Your task to perform on an android device: Search for the best vacuum on Walmart Image 0: 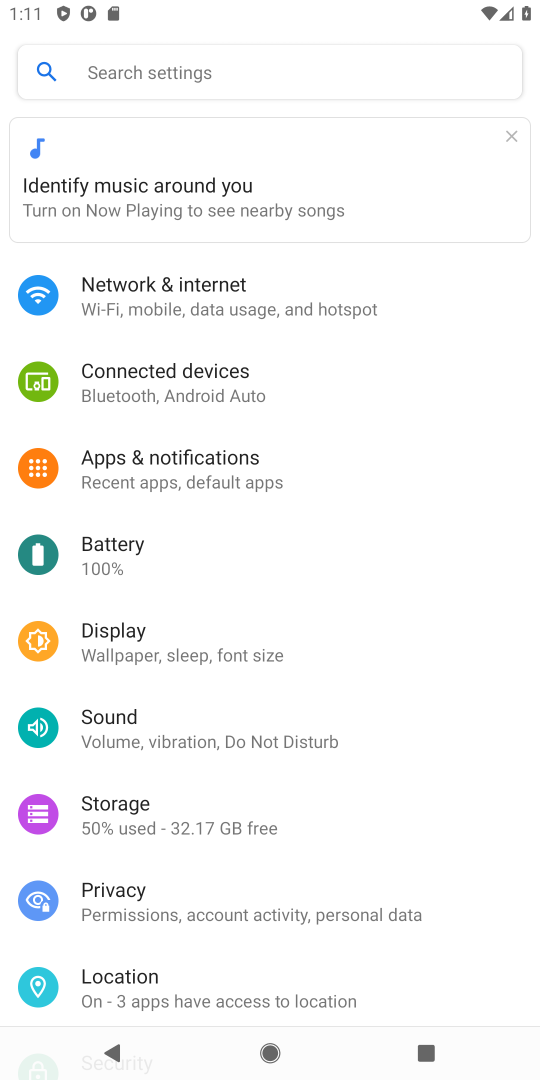
Step 0: press home button
Your task to perform on an android device: Search for the best vacuum on Walmart Image 1: 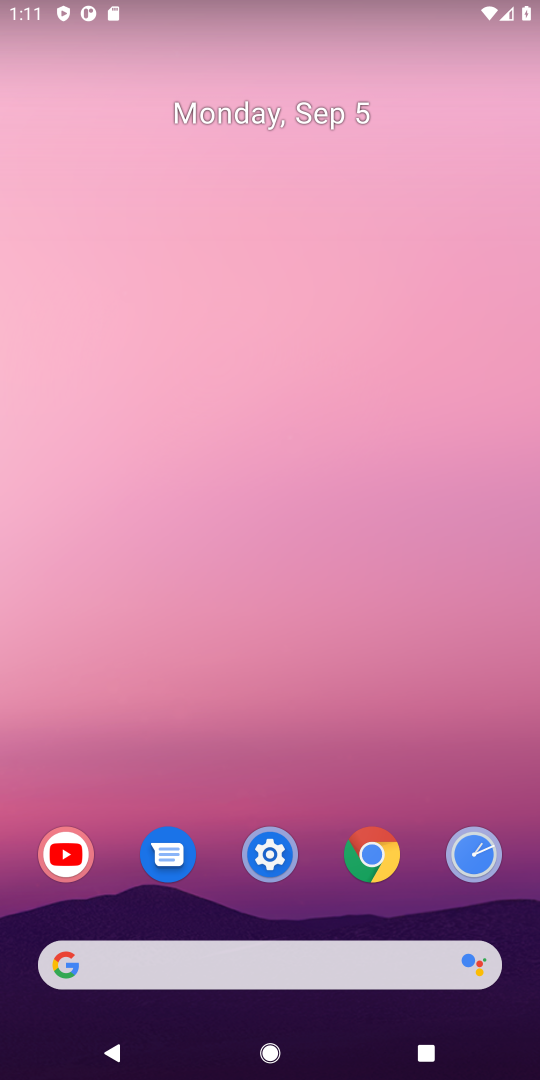
Step 1: click (258, 970)
Your task to perform on an android device: Search for the best vacuum on Walmart Image 2: 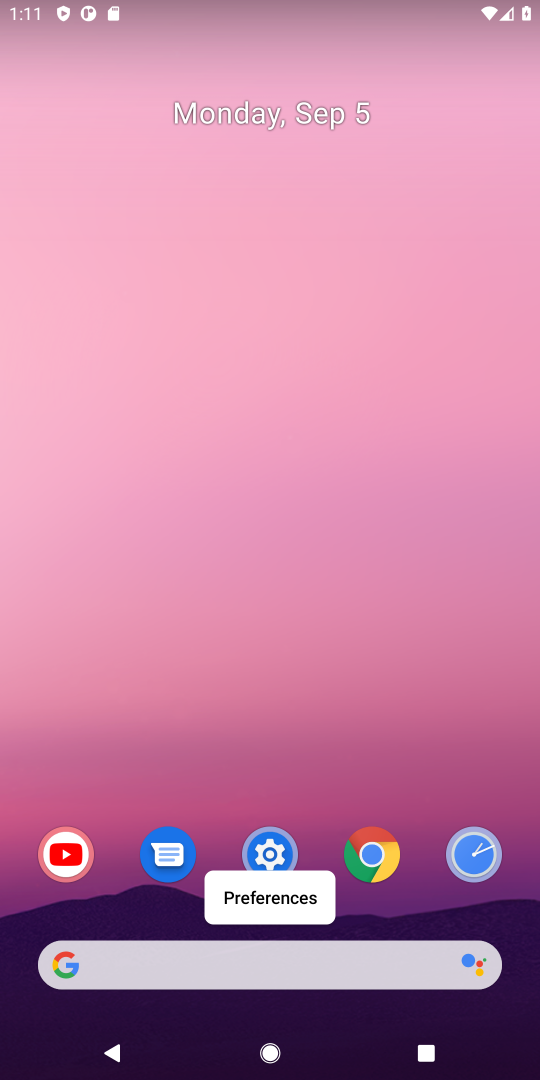
Step 2: click (258, 970)
Your task to perform on an android device: Search for the best vacuum on Walmart Image 3: 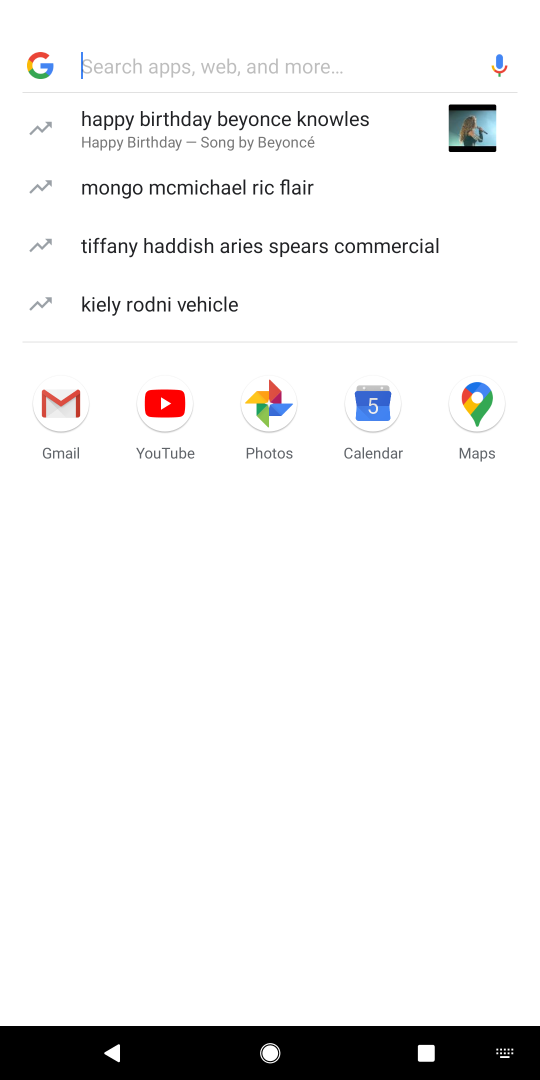
Step 3: type "Walmart"
Your task to perform on an android device: Search for the best vacuum on Walmart Image 4: 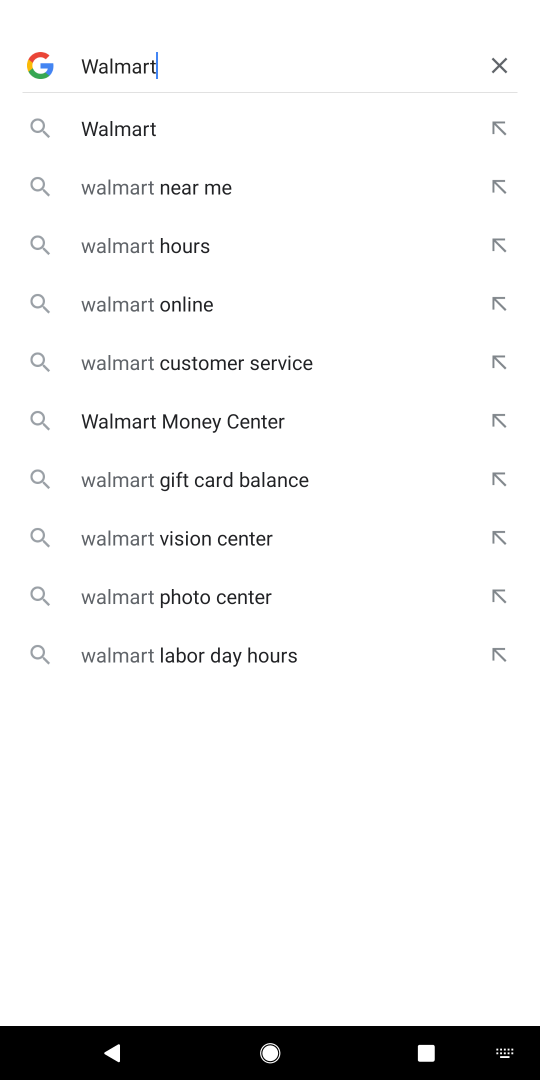
Step 4: click (159, 118)
Your task to perform on an android device: Search for the best vacuum on Walmart Image 5: 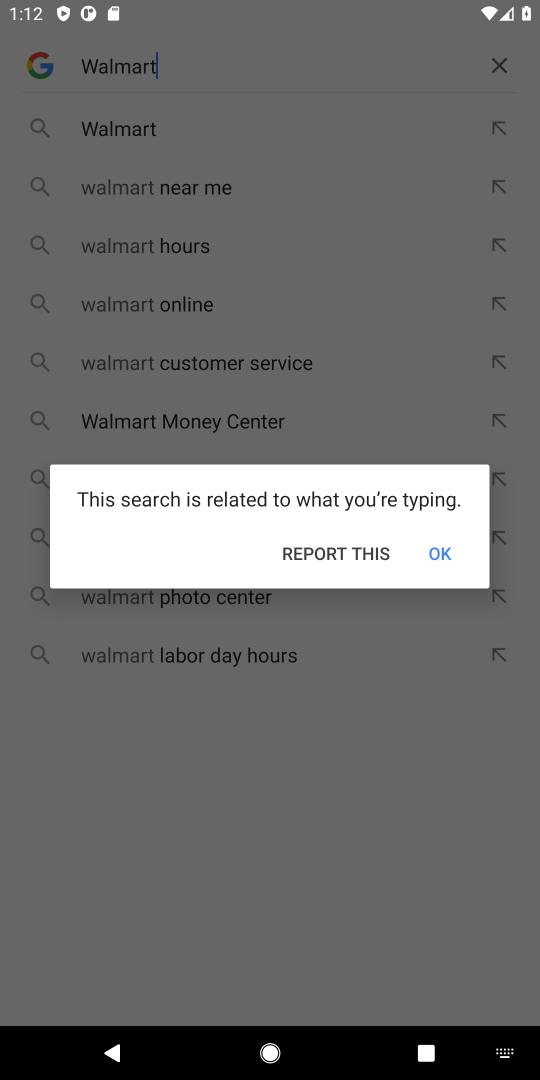
Step 5: click (440, 556)
Your task to perform on an android device: Search for the best vacuum on Walmart Image 6: 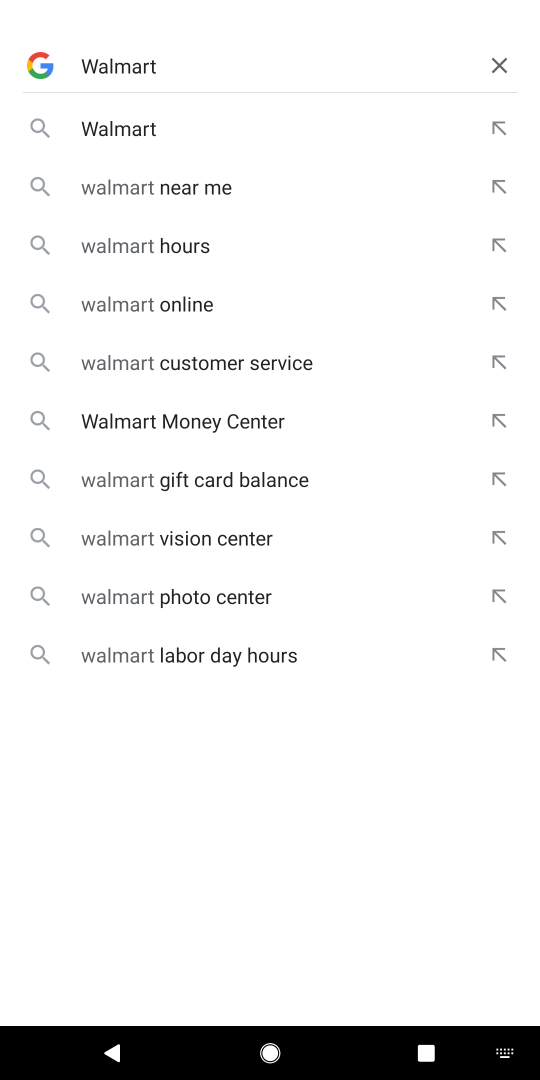
Step 6: click (168, 118)
Your task to perform on an android device: Search for the best vacuum on Walmart Image 7: 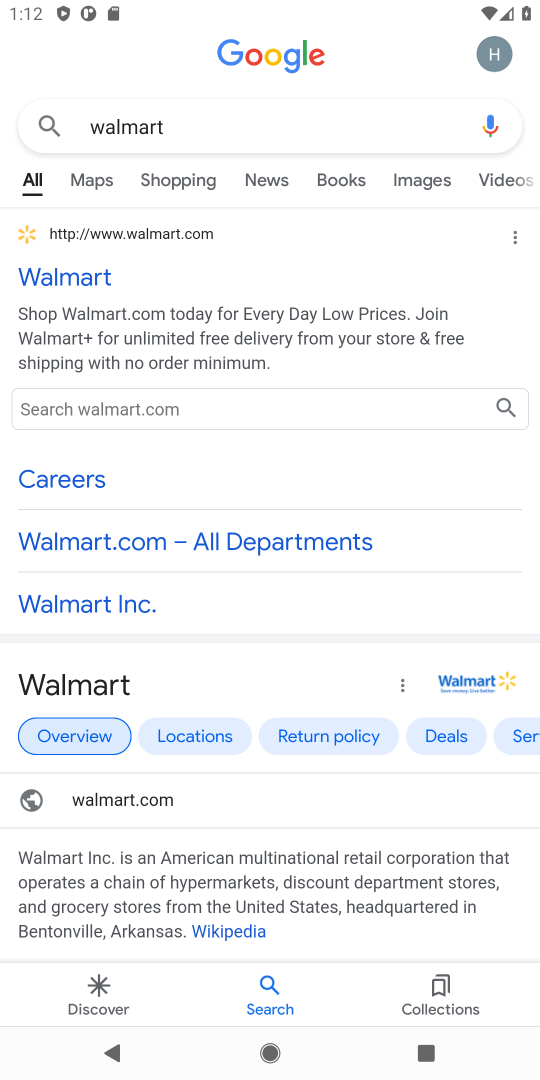
Step 7: click (63, 287)
Your task to perform on an android device: Search for the best vacuum on Walmart Image 8: 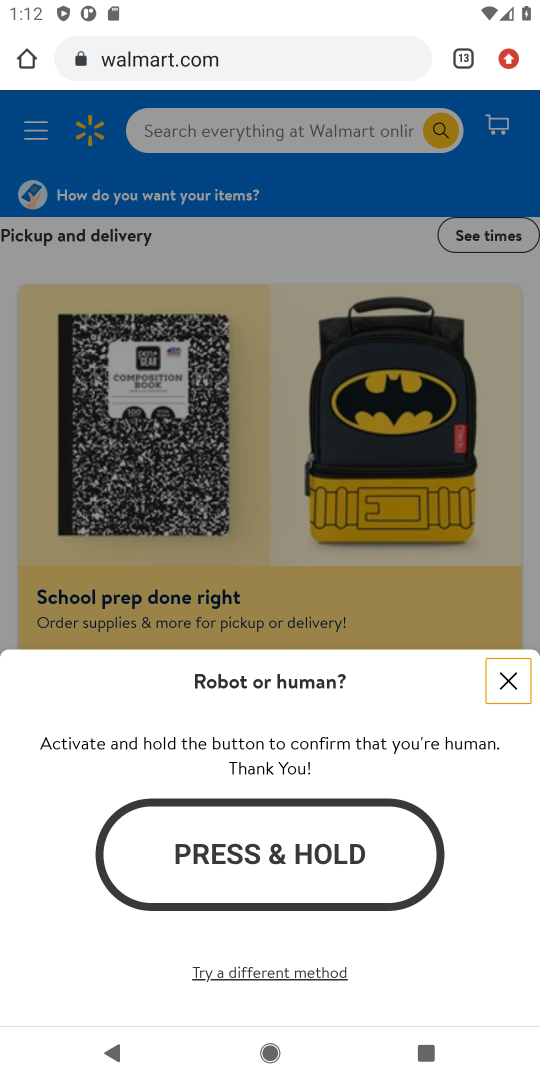
Step 8: click (516, 704)
Your task to perform on an android device: Search for the best vacuum on Walmart Image 9: 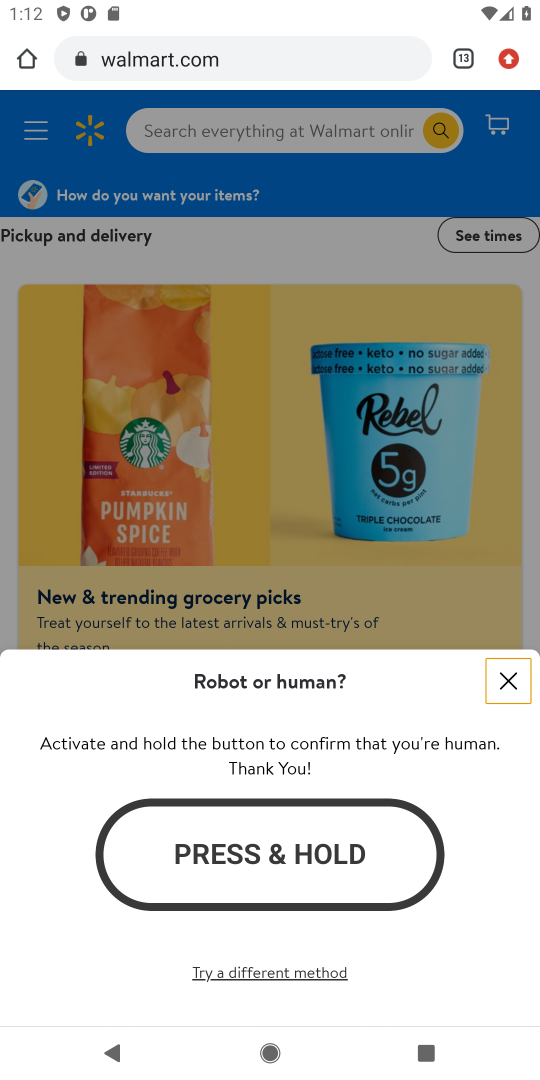
Step 9: click (509, 692)
Your task to perform on an android device: Search for the best vacuum on Walmart Image 10: 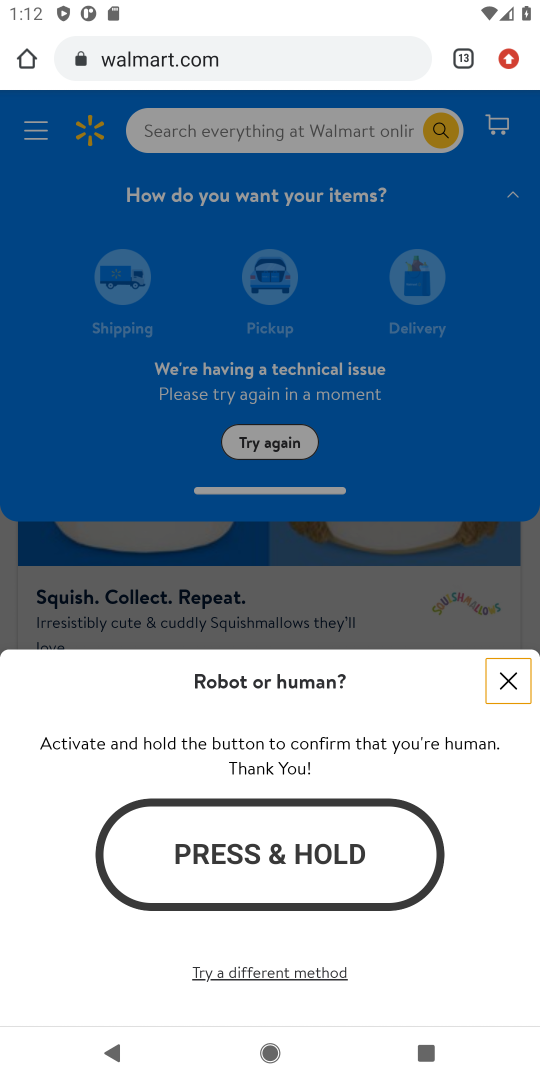
Step 10: click (490, 668)
Your task to perform on an android device: Search for the best vacuum on Walmart Image 11: 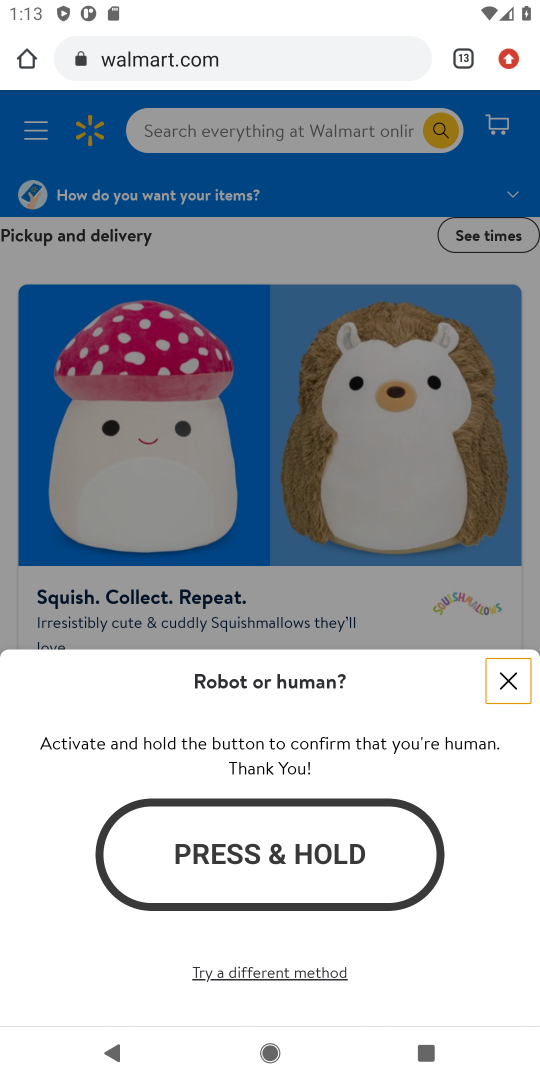
Step 11: click (493, 681)
Your task to perform on an android device: Search for the best vacuum on Walmart Image 12: 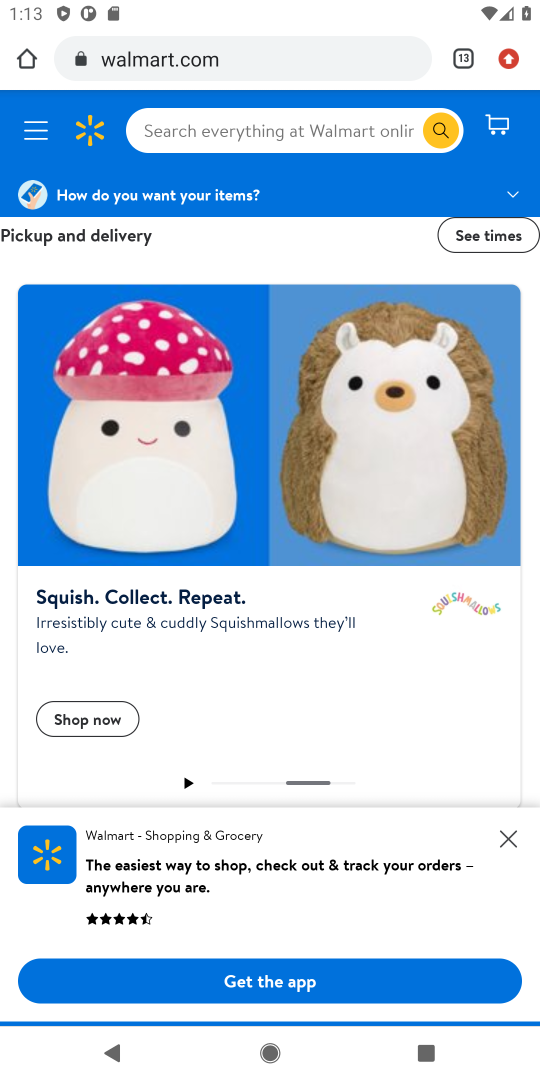
Step 12: type "vacuum"
Your task to perform on an android device: Search for the best vacuum on Walmart Image 13: 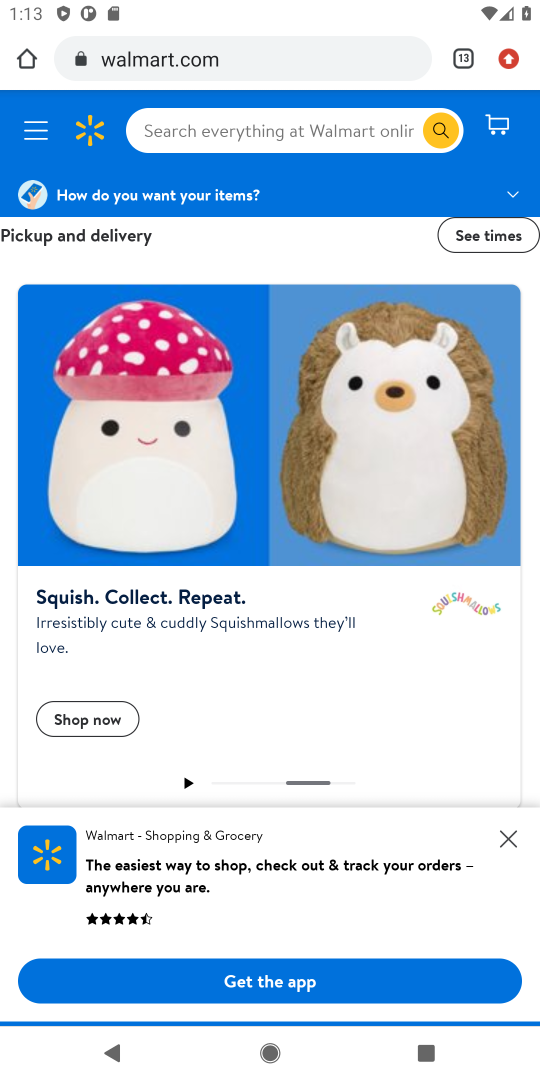
Step 13: click (222, 135)
Your task to perform on an android device: Search for the best vacuum on Walmart Image 14: 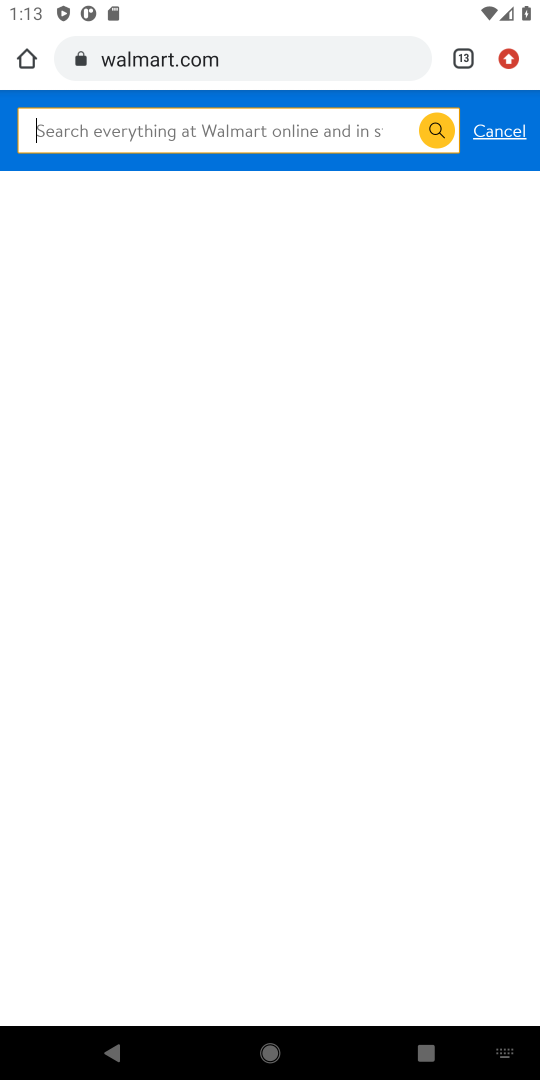
Step 14: type "vacuum"
Your task to perform on an android device: Search for the best vacuum on Walmart Image 15: 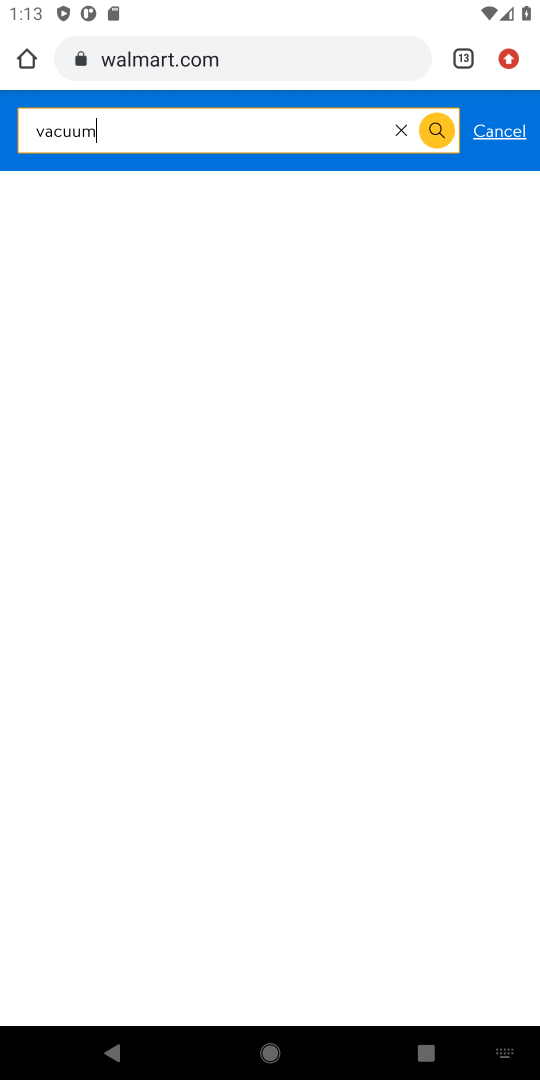
Step 15: type ""
Your task to perform on an android device: Search for the best vacuum on Walmart Image 16: 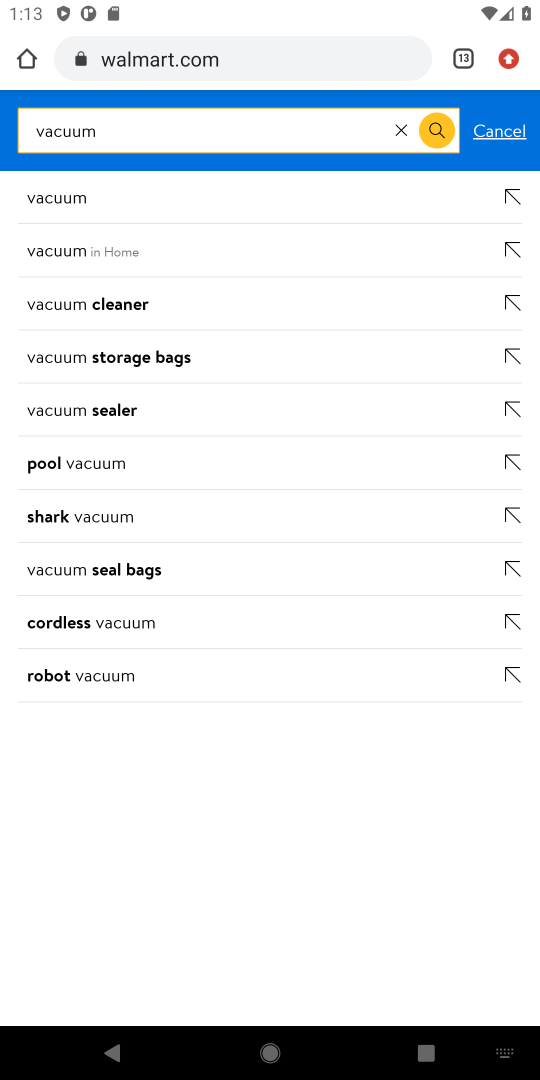
Step 16: click (235, 201)
Your task to perform on an android device: Search for the best vacuum on Walmart Image 17: 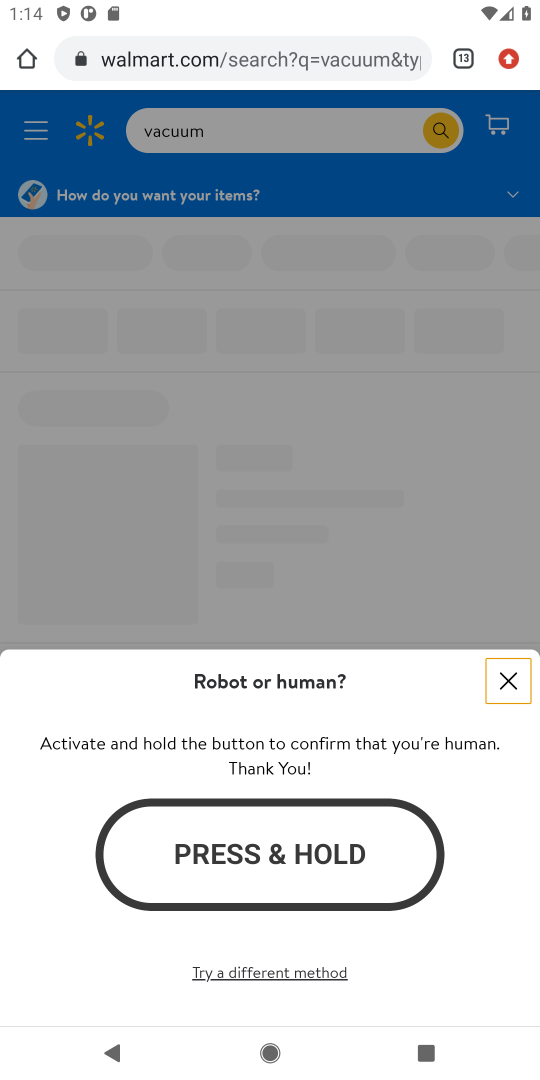
Step 17: click (301, 859)
Your task to perform on an android device: Search for the best vacuum on Walmart Image 18: 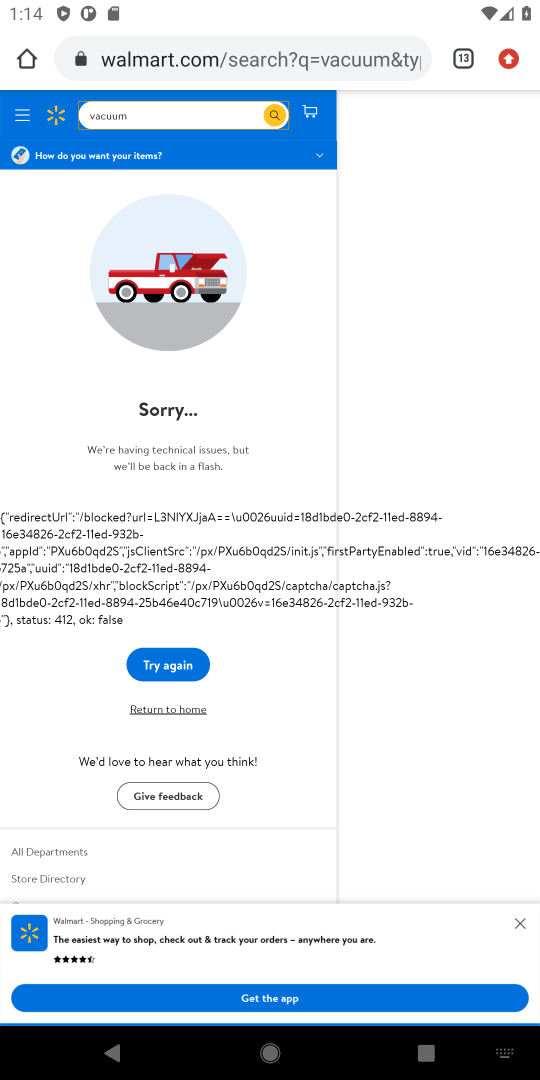
Step 18: task complete